Your task to perform on an android device: Go to calendar. Show me events next week Image 0: 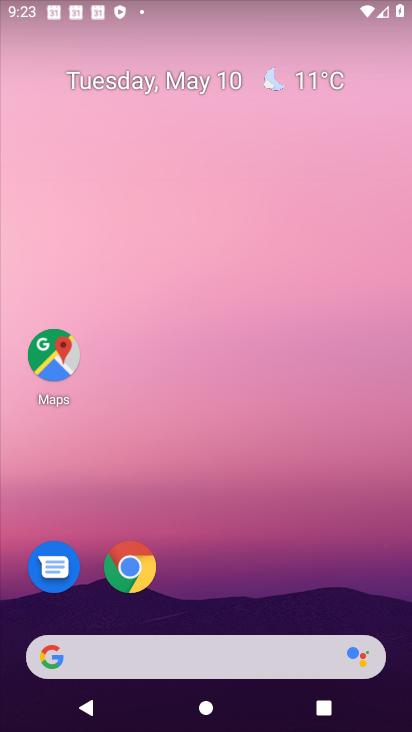
Step 0: drag from (158, 621) to (216, 193)
Your task to perform on an android device: Go to calendar. Show me events next week Image 1: 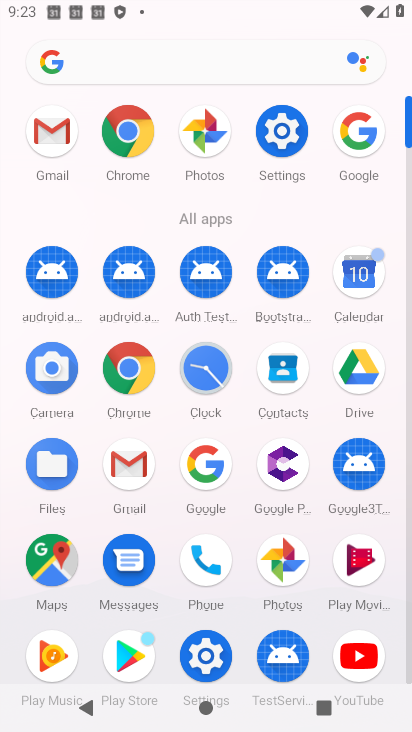
Step 1: click (372, 278)
Your task to perform on an android device: Go to calendar. Show me events next week Image 2: 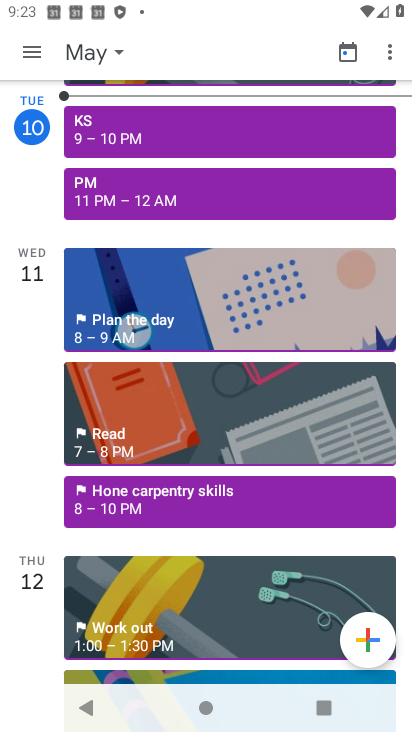
Step 2: click (95, 61)
Your task to perform on an android device: Go to calendar. Show me events next week Image 3: 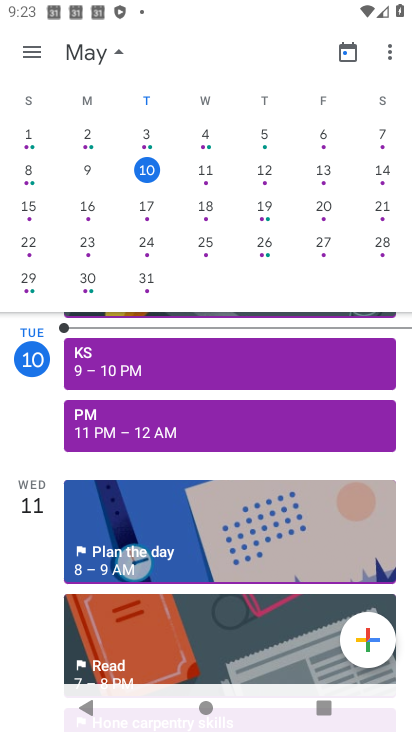
Step 3: click (328, 210)
Your task to perform on an android device: Go to calendar. Show me events next week Image 4: 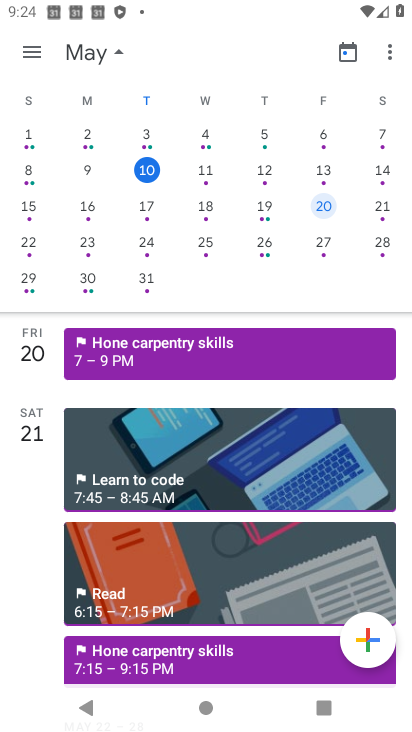
Step 4: task complete